Your task to perform on an android device: Search for Italian restaurants on Maps Image 0: 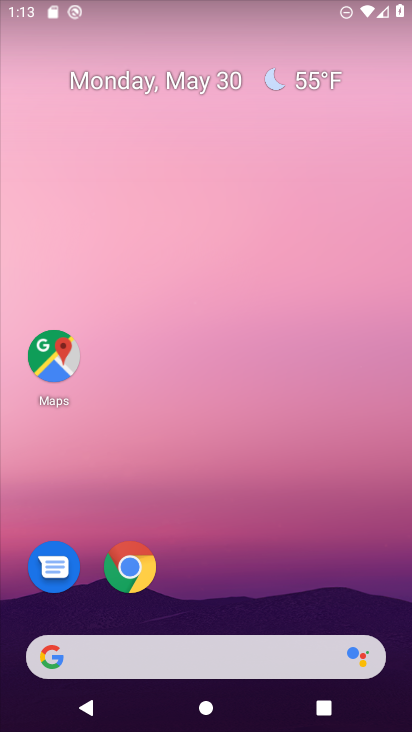
Step 0: click (50, 353)
Your task to perform on an android device: Search for Italian restaurants on Maps Image 1: 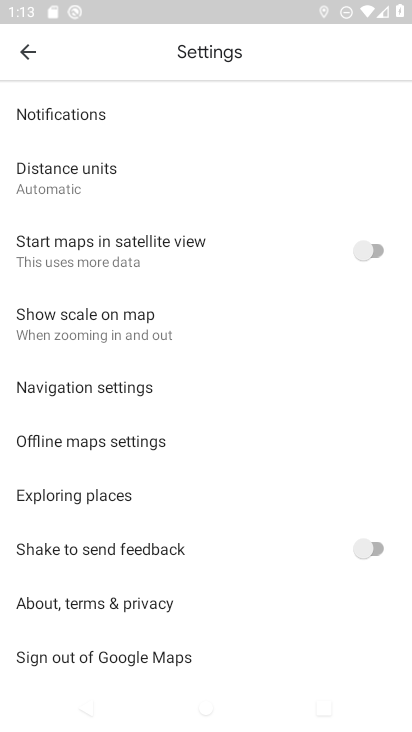
Step 1: press home button
Your task to perform on an android device: Search for Italian restaurants on Maps Image 2: 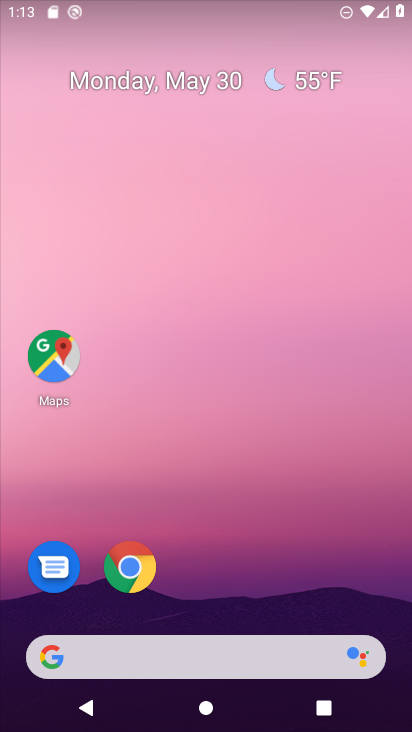
Step 2: click (57, 352)
Your task to perform on an android device: Search for Italian restaurants on Maps Image 3: 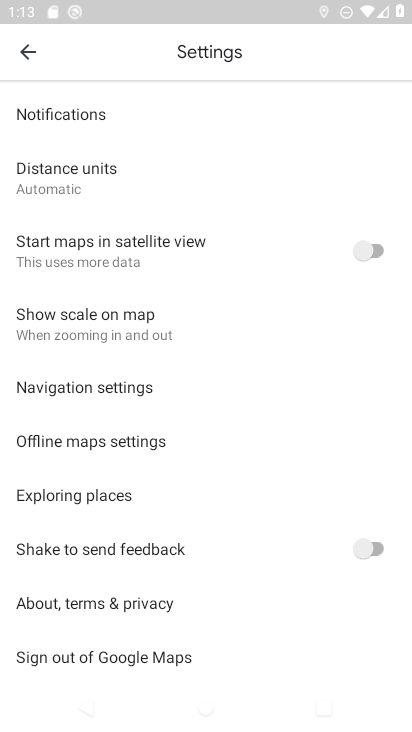
Step 3: click (31, 48)
Your task to perform on an android device: Search for Italian restaurants on Maps Image 4: 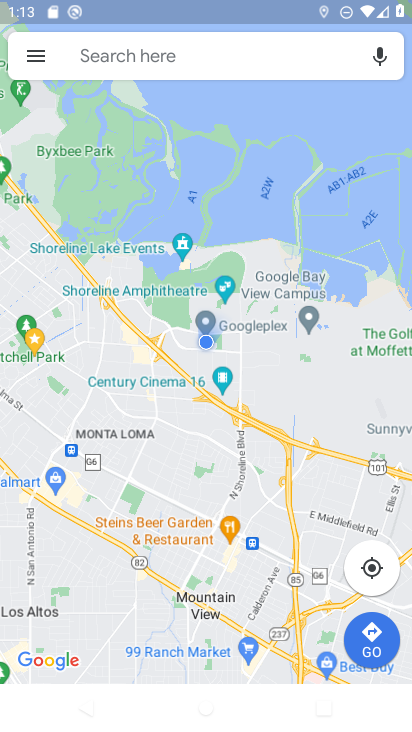
Step 4: click (111, 40)
Your task to perform on an android device: Search for Italian restaurants on Maps Image 5: 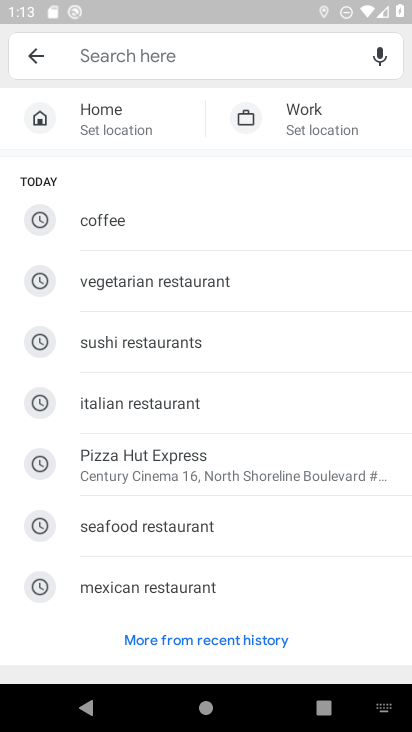
Step 5: click (154, 393)
Your task to perform on an android device: Search for Italian restaurants on Maps Image 6: 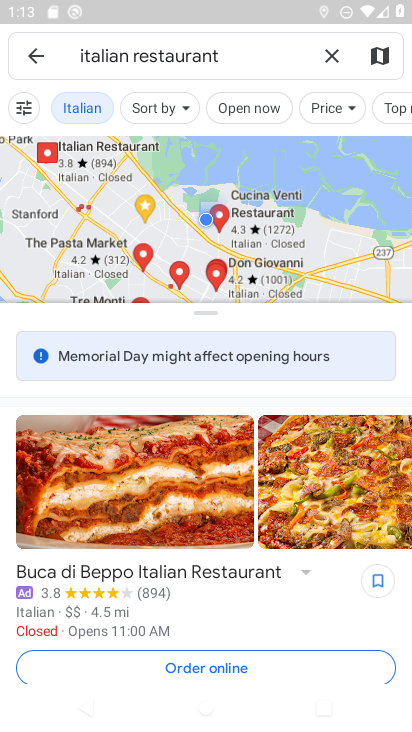
Step 6: task complete